Your task to perform on an android device: toggle notification dots Image 0: 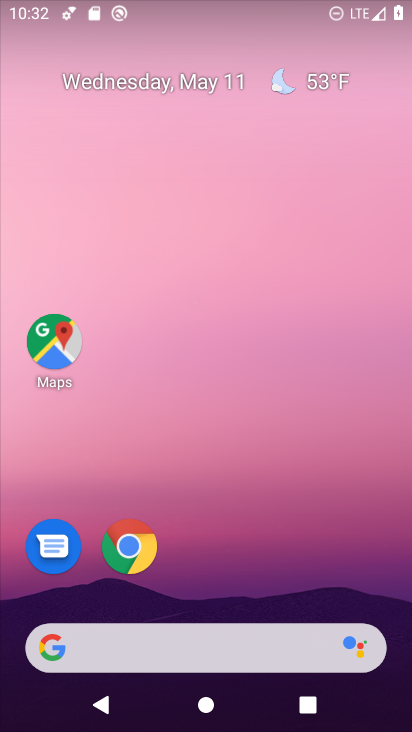
Step 0: drag from (394, 627) to (302, 4)
Your task to perform on an android device: toggle notification dots Image 1: 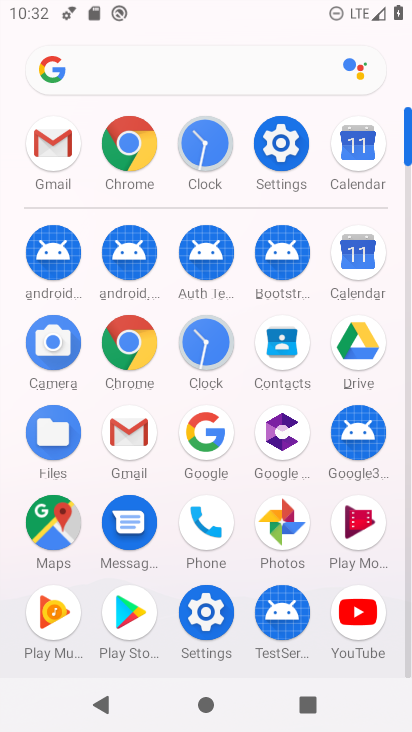
Step 1: click (269, 155)
Your task to perform on an android device: toggle notification dots Image 2: 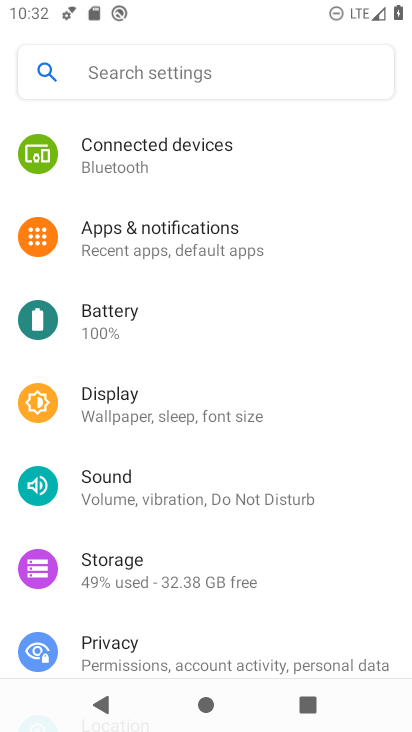
Step 2: click (213, 270)
Your task to perform on an android device: toggle notification dots Image 3: 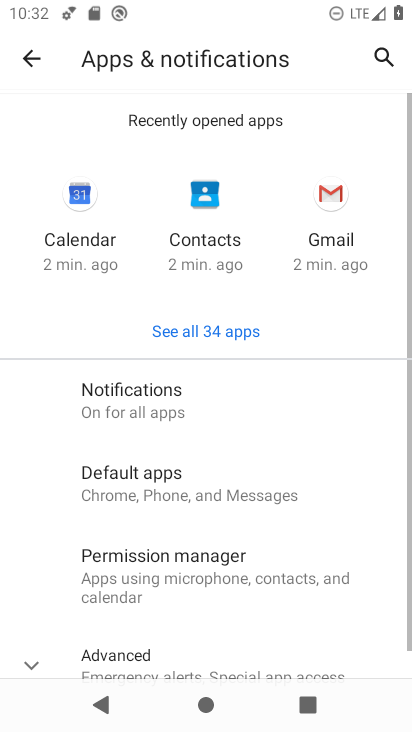
Step 3: click (178, 373)
Your task to perform on an android device: toggle notification dots Image 4: 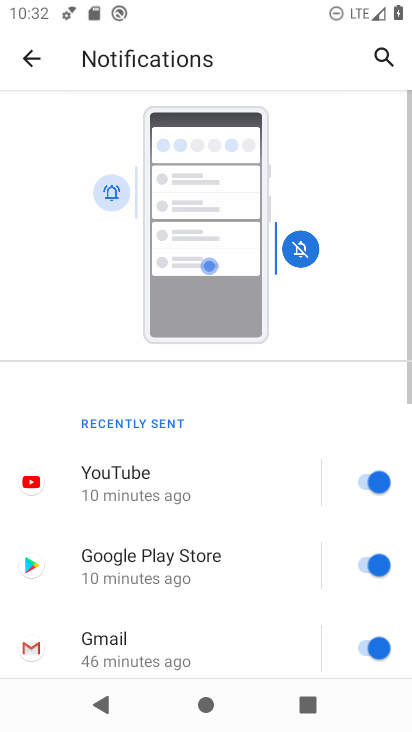
Step 4: drag from (175, 622) to (297, 70)
Your task to perform on an android device: toggle notification dots Image 5: 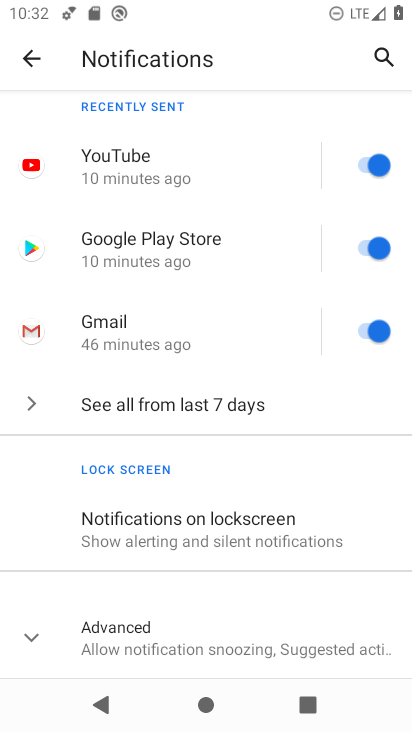
Step 5: click (52, 651)
Your task to perform on an android device: toggle notification dots Image 6: 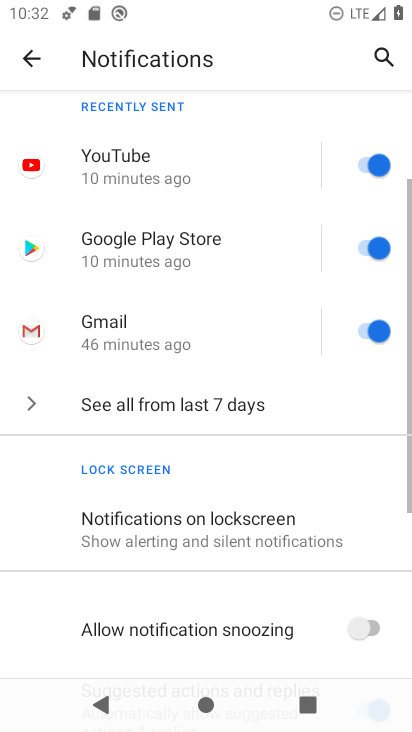
Step 6: drag from (52, 651) to (194, 110)
Your task to perform on an android device: toggle notification dots Image 7: 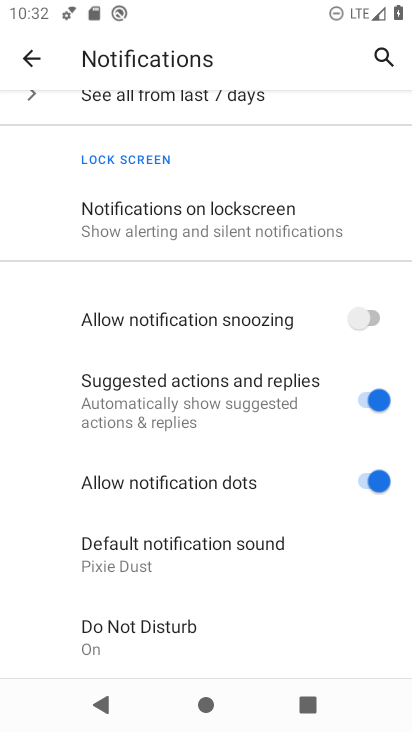
Step 7: click (294, 478)
Your task to perform on an android device: toggle notification dots Image 8: 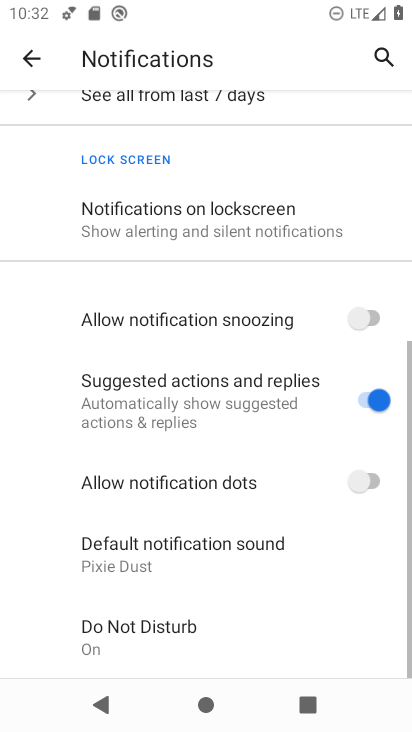
Step 8: task complete